Your task to perform on an android device: Is it going to rain tomorrow? Image 0: 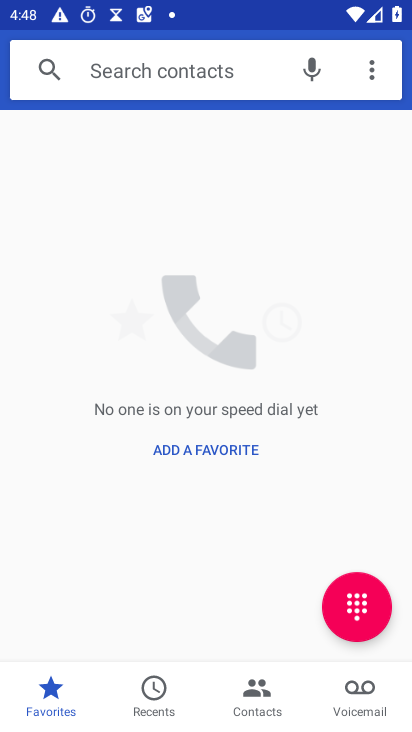
Step 0: press home button
Your task to perform on an android device: Is it going to rain tomorrow? Image 1: 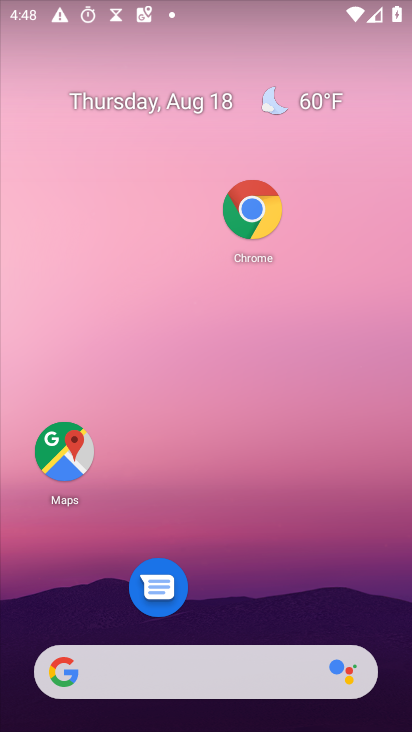
Step 1: drag from (312, 594) to (373, 105)
Your task to perform on an android device: Is it going to rain tomorrow? Image 2: 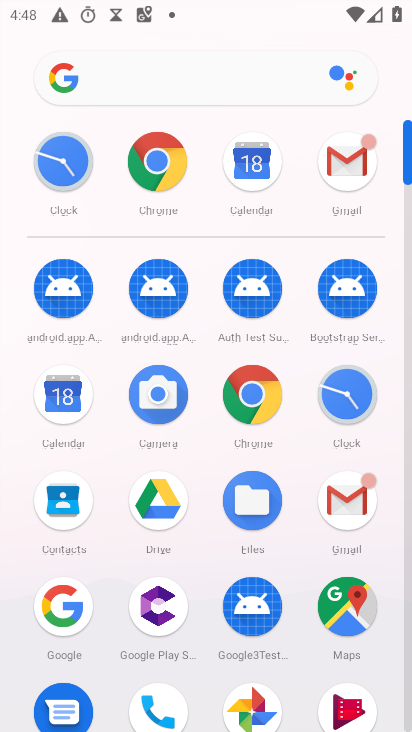
Step 2: click (262, 397)
Your task to perform on an android device: Is it going to rain tomorrow? Image 3: 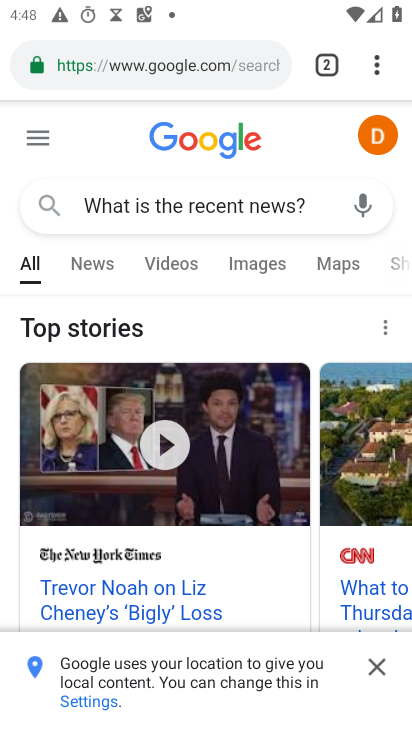
Step 3: click (154, 68)
Your task to perform on an android device: Is it going to rain tomorrow? Image 4: 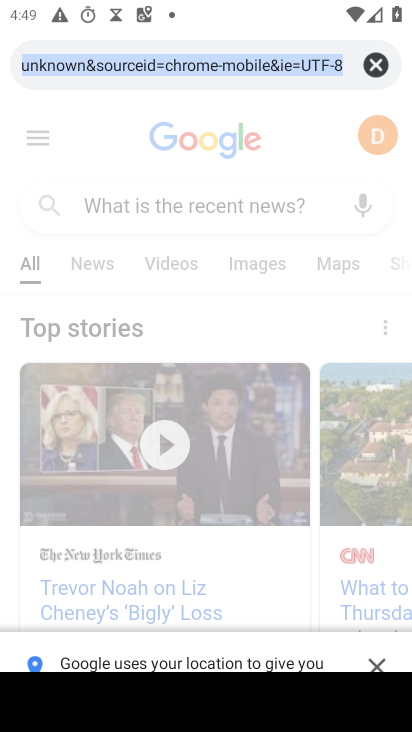
Step 4: type "Is it going to rain tomorrow?"
Your task to perform on an android device: Is it going to rain tomorrow? Image 5: 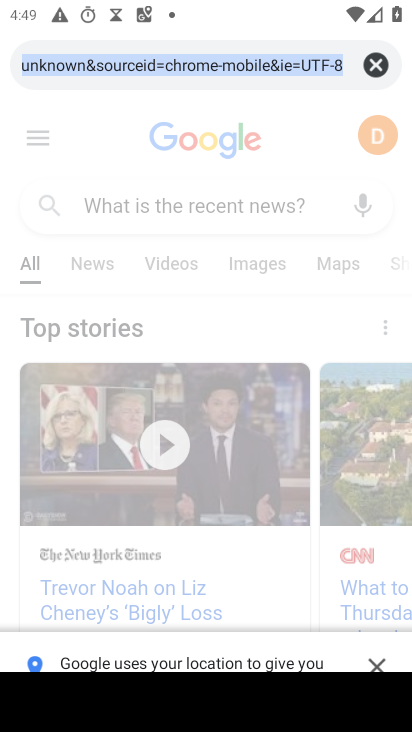
Step 5: click (364, 70)
Your task to perform on an android device: Is it going to rain tomorrow? Image 6: 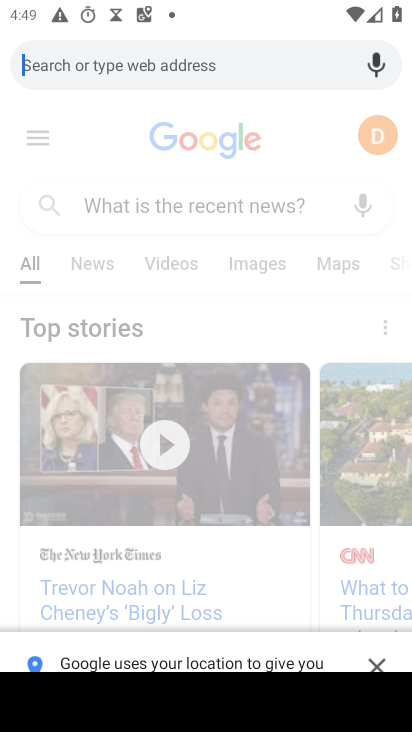
Step 6: click (371, 64)
Your task to perform on an android device: Is it going to rain tomorrow? Image 7: 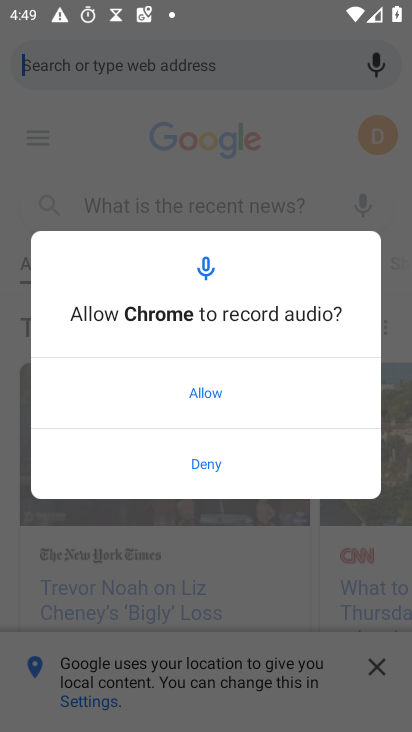
Step 7: click (276, 52)
Your task to perform on an android device: Is it going to rain tomorrow? Image 8: 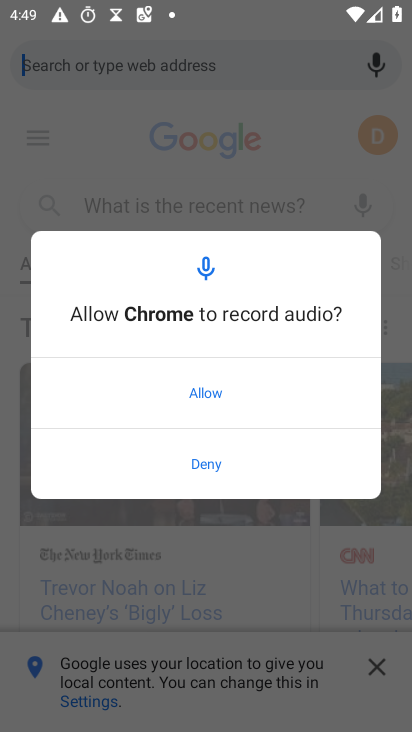
Step 8: click (222, 460)
Your task to perform on an android device: Is it going to rain tomorrow? Image 9: 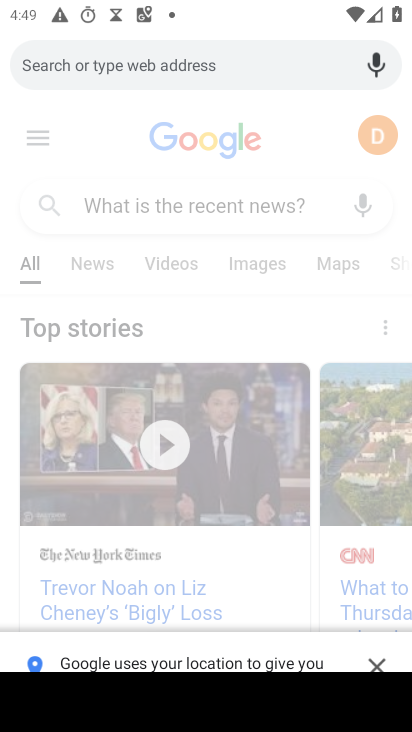
Step 9: click (35, 54)
Your task to perform on an android device: Is it going to rain tomorrow? Image 10: 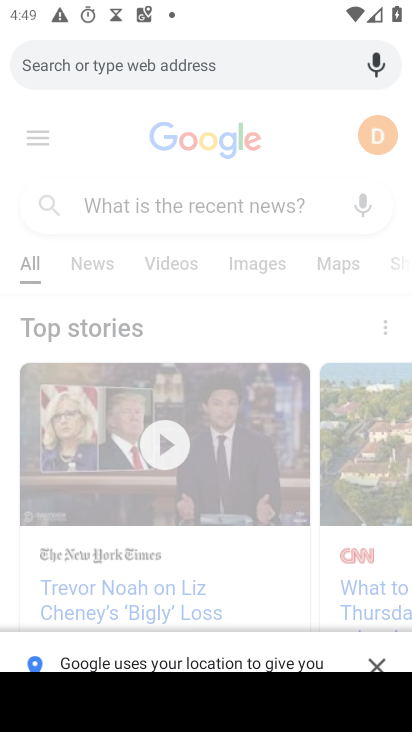
Step 10: type "Is it going to rain tomorrow?"
Your task to perform on an android device: Is it going to rain tomorrow? Image 11: 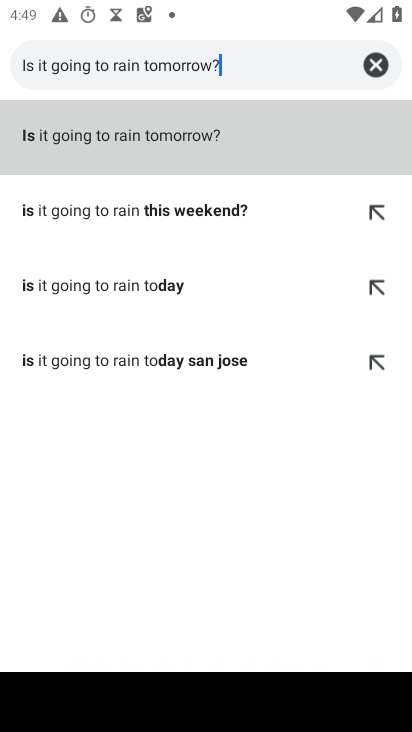
Step 11: type ""
Your task to perform on an android device: Is it going to rain tomorrow? Image 12: 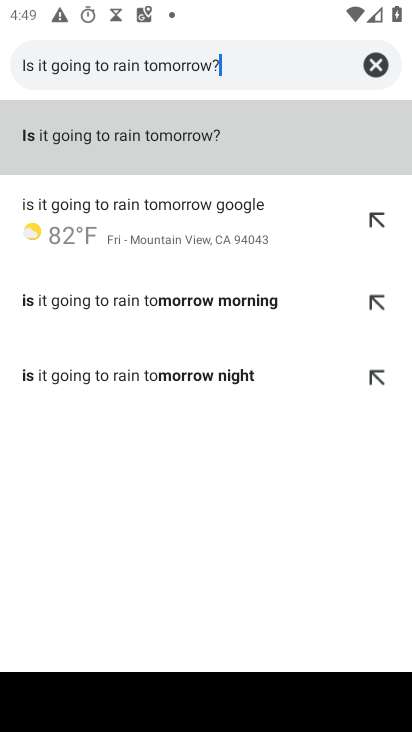
Step 12: click (134, 124)
Your task to perform on an android device: Is it going to rain tomorrow? Image 13: 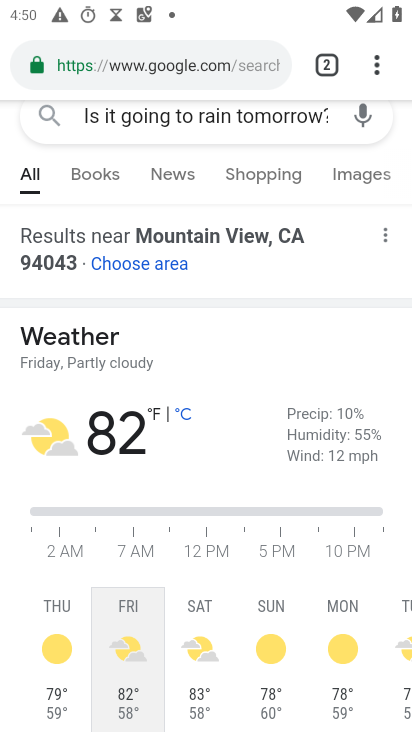
Step 13: task complete